Your task to perform on an android device: Do I have any events this weekend? Image 0: 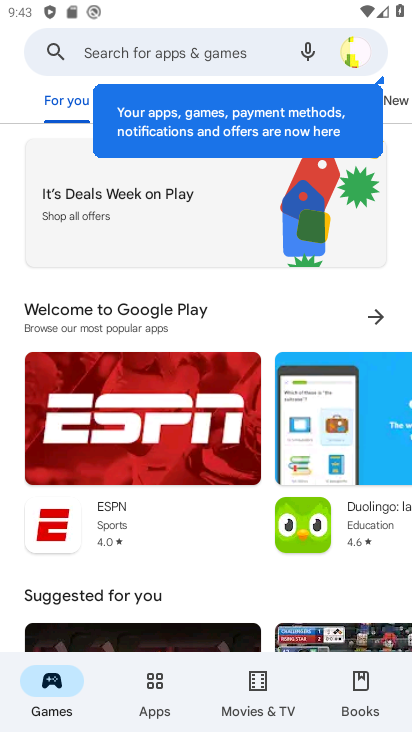
Step 0: press home button
Your task to perform on an android device: Do I have any events this weekend? Image 1: 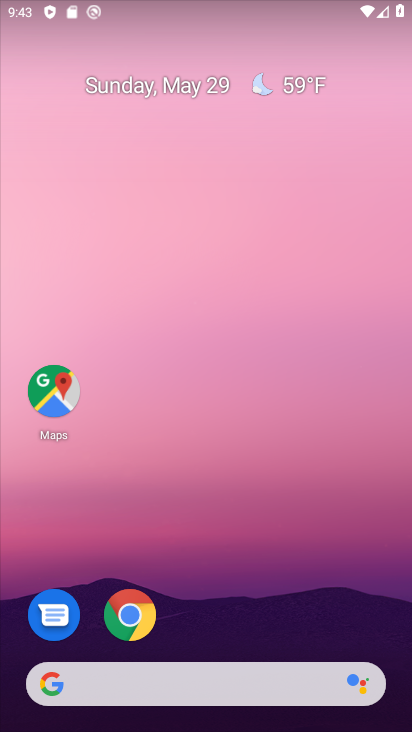
Step 1: drag from (196, 568) to (266, 94)
Your task to perform on an android device: Do I have any events this weekend? Image 2: 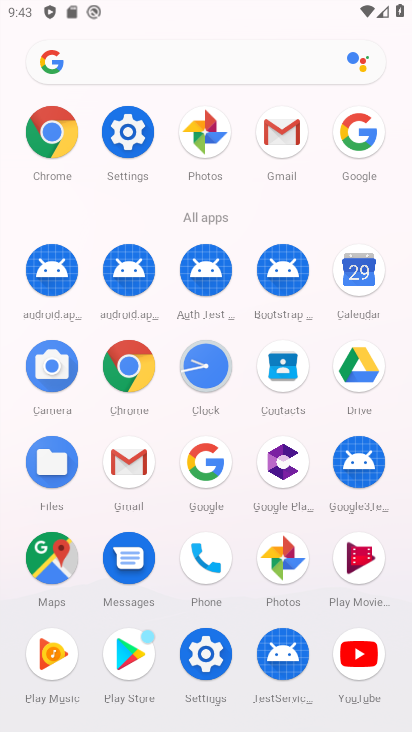
Step 2: click (356, 279)
Your task to perform on an android device: Do I have any events this weekend? Image 3: 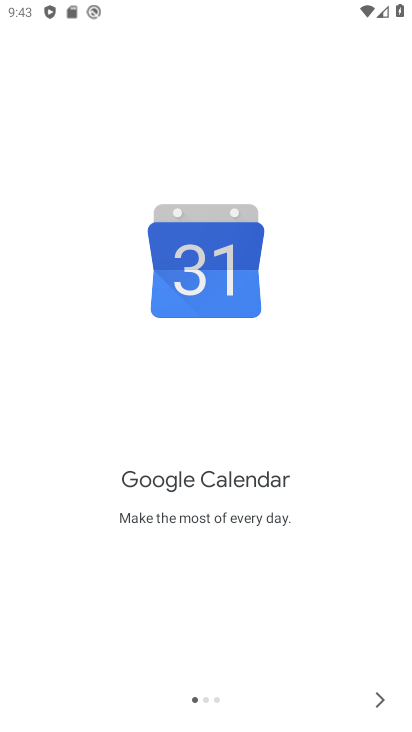
Step 3: click (397, 706)
Your task to perform on an android device: Do I have any events this weekend? Image 4: 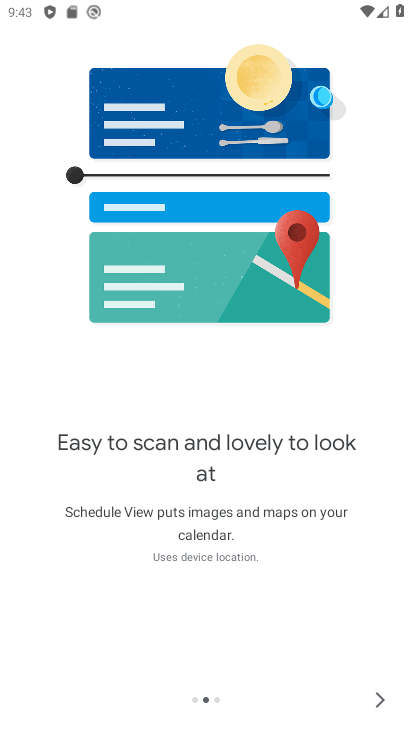
Step 4: click (388, 706)
Your task to perform on an android device: Do I have any events this weekend? Image 5: 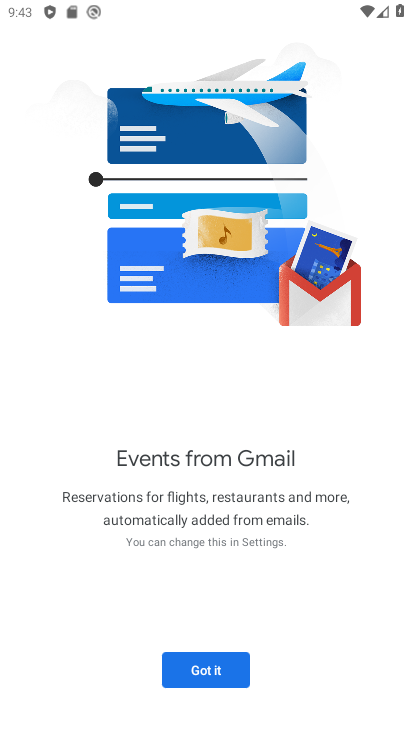
Step 5: click (224, 669)
Your task to perform on an android device: Do I have any events this weekend? Image 6: 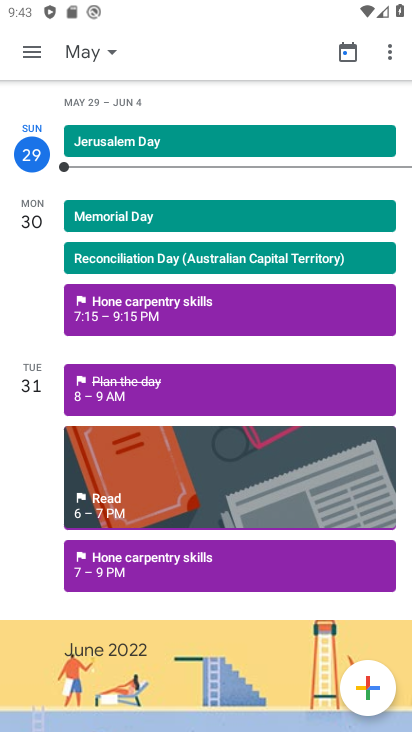
Step 6: click (85, 53)
Your task to perform on an android device: Do I have any events this weekend? Image 7: 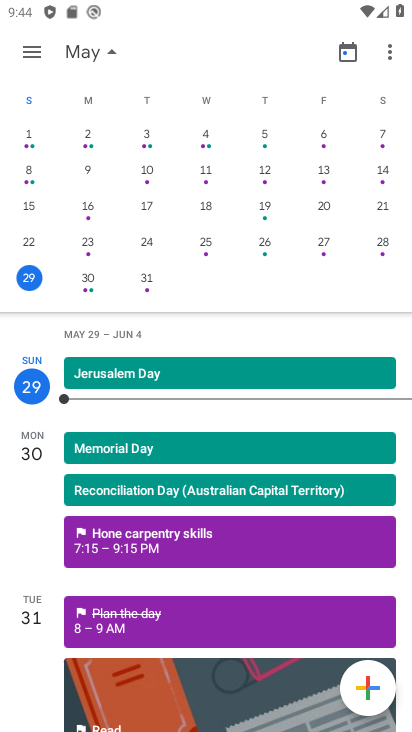
Step 7: click (34, 280)
Your task to perform on an android device: Do I have any events this weekend? Image 8: 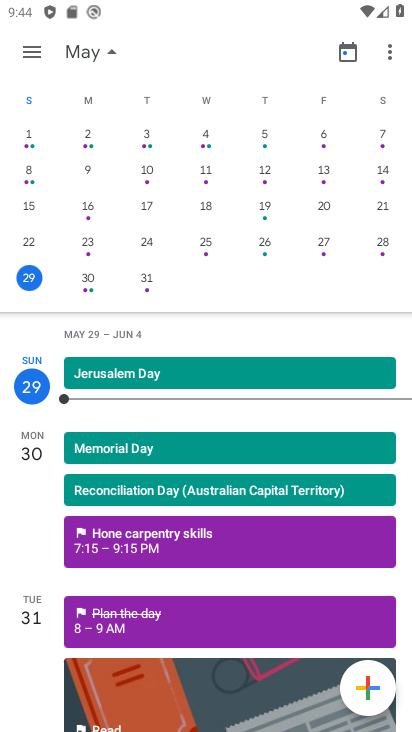
Step 8: task complete